Your task to perform on an android device: Open display settings Image 0: 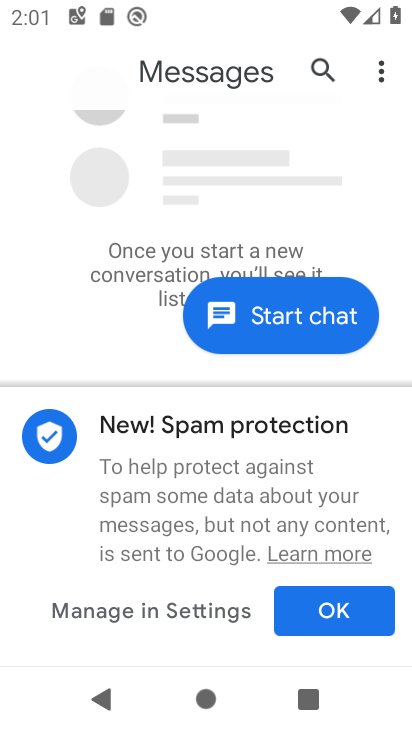
Step 0: press home button
Your task to perform on an android device: Open display settings Image 1: 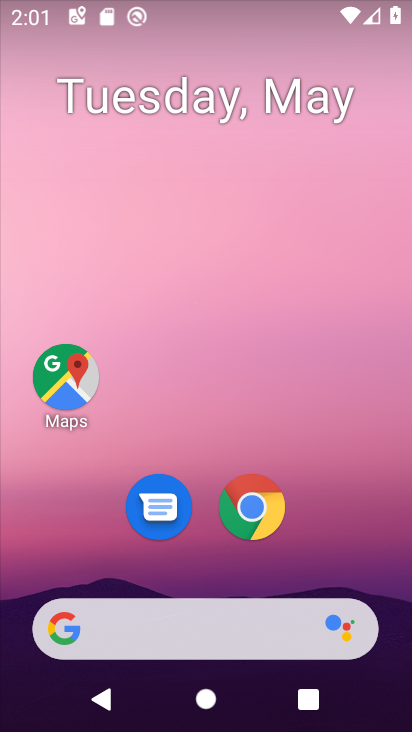
Step 1: drag from (222, 554) to (223, 221)
Your task to perform on an android device: Open display settings Image 2: 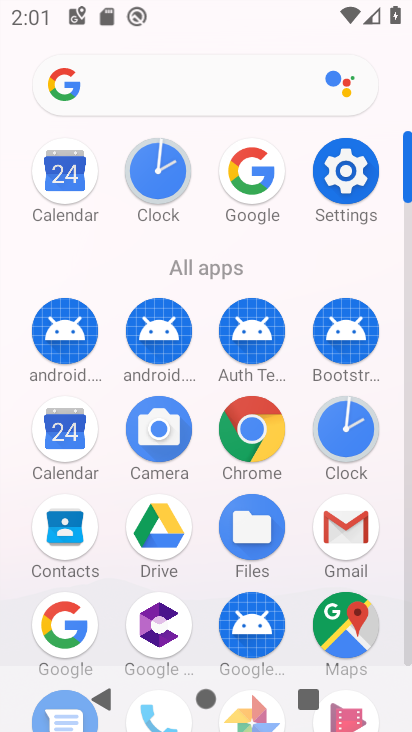
Step 2: click (335, 183)
Your task to perform on an android device: Open display settings Image 3: 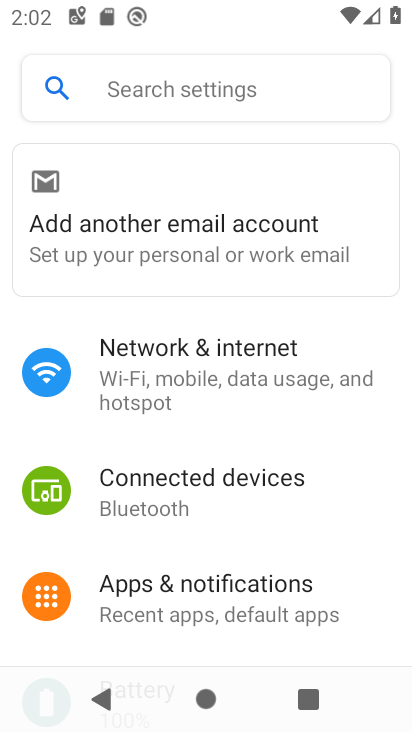
Step 3: drag from (195, 576) to (191, 198)
Your task to perform on an android device: Open display settings Image 4: 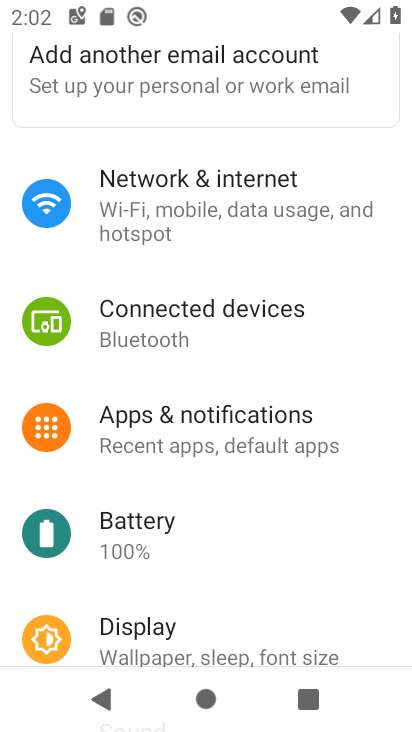
Step 4: click (184, 631)
Your task to perform on an android device: Open display settings Image 5: 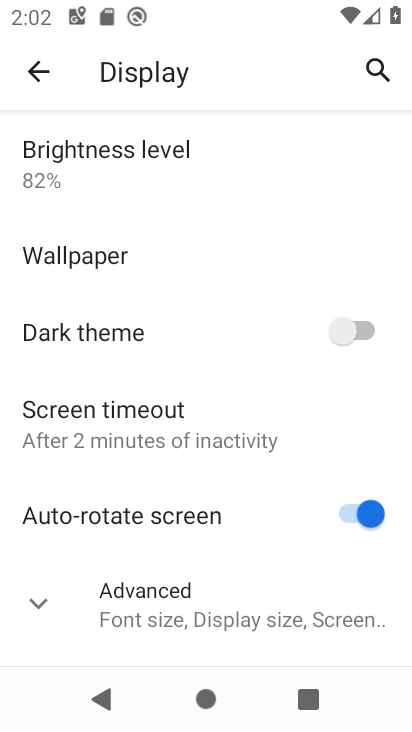
Step 5: task complete